Your task to perform on an android device: Go to Reddit.com Image 0: 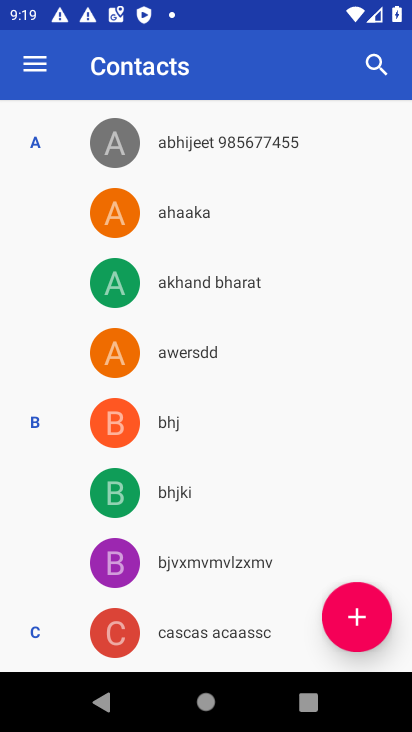
Step 0: press home button
Your task to perform on an android device: Go to Reddit.com Image 1: 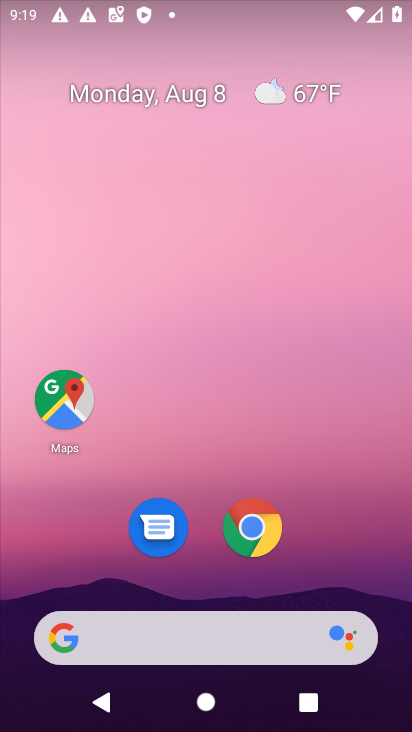
Step 1: click (259, 518)
Your task to perform on an android device: Go to Reddit.com Image 2: 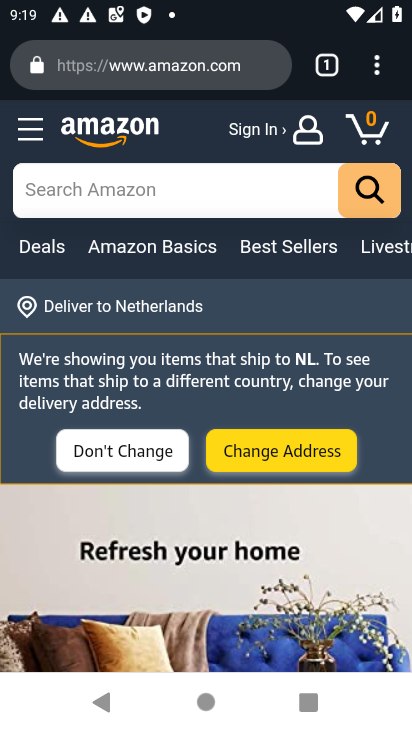
Step 2: click (242, 62)
Your task to perform on an android device: Go to Reddit.com Image 3: 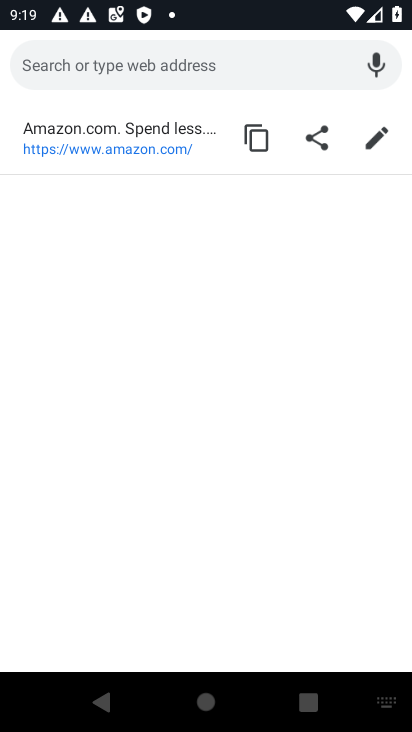
Step 3: type "Reddit.com"
Your task to perform on an android device: Go to Reddit.com Image 4: 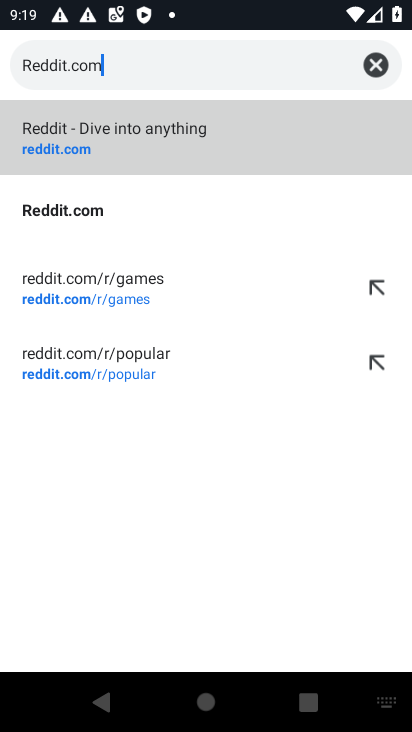
Step 4: click (64, 194)
Your task to perform on an android device: Go to Reddit.com Image 5: 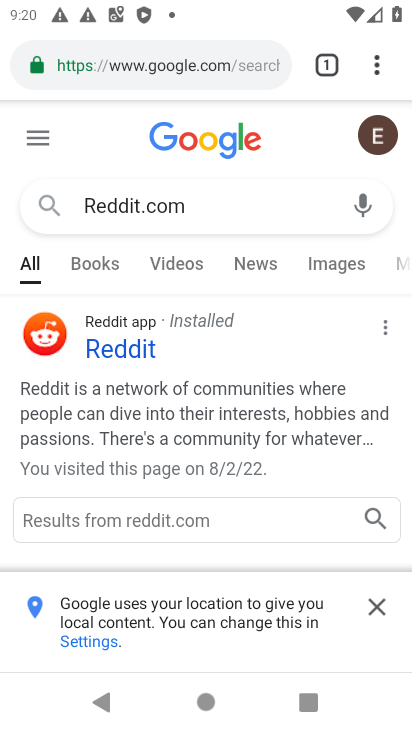
Step 5: task complete